Your task to perform on an android device: Show me popular games on the Play Store Image 0: 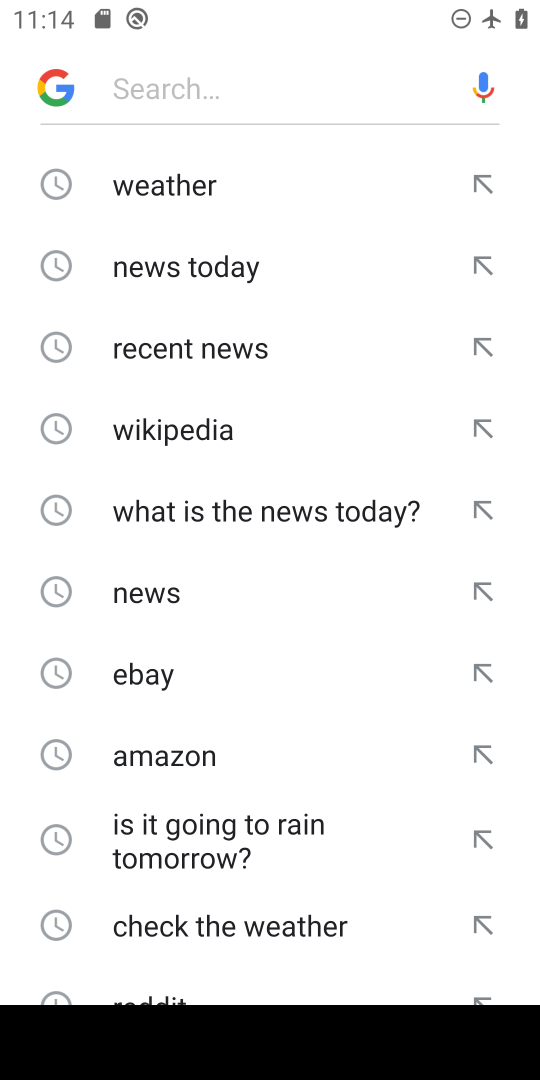
Step 0: press home button
Your task to perform on an android device: Show me popular games on the Play Store Image 1: 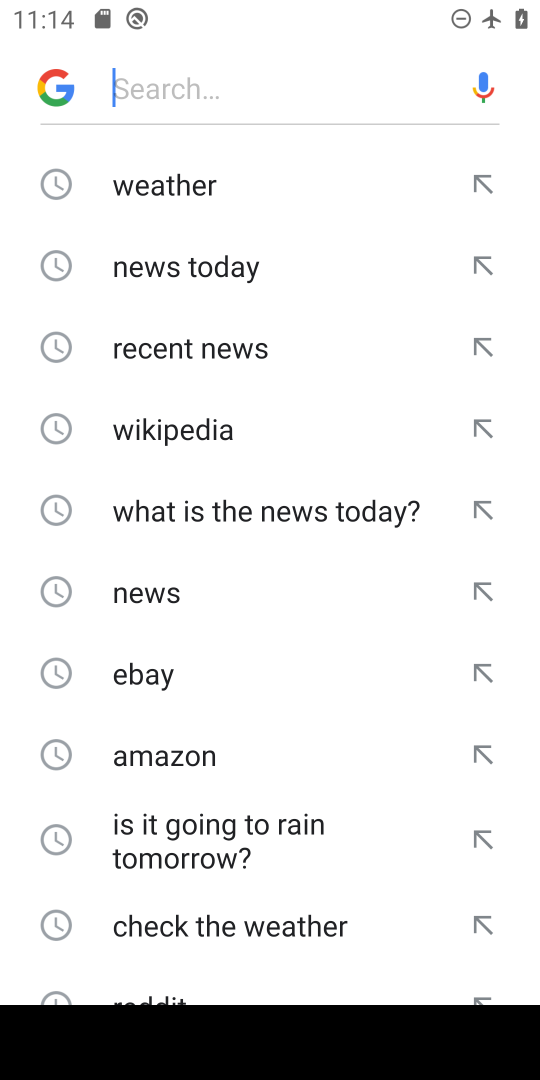
Step 1: press home button
Your task to perform on an android device: Show me popular games on the Play Store Image 2: 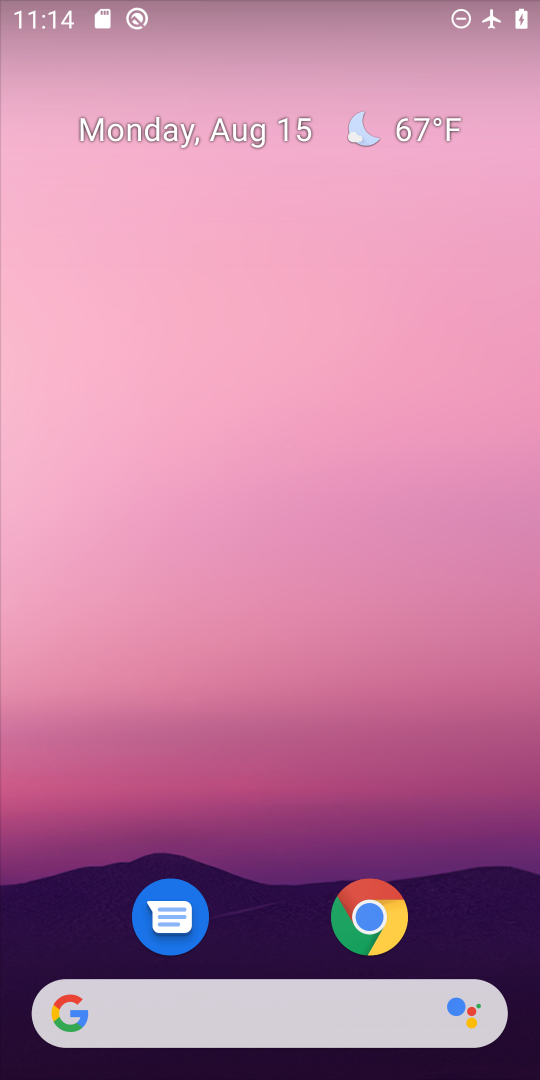
Step 2: drag from (265, 835) to (253, 0)
Your task to perform on an android device: Show me popular games on the Play Store Image 3: 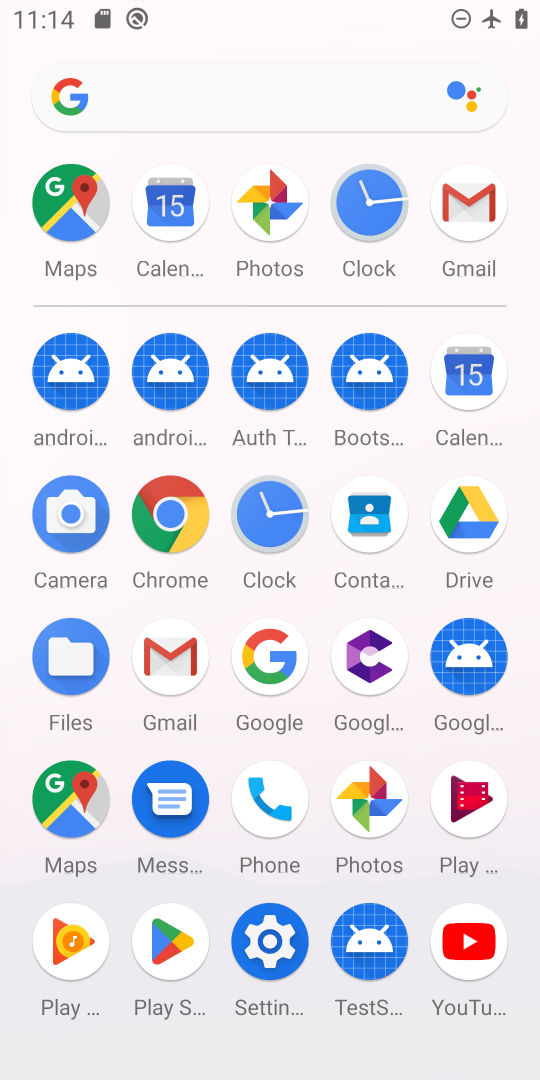
Step 3: click (173, 932)
Your task to perform on an android device: Show me popular games on the Play Store Image 4: 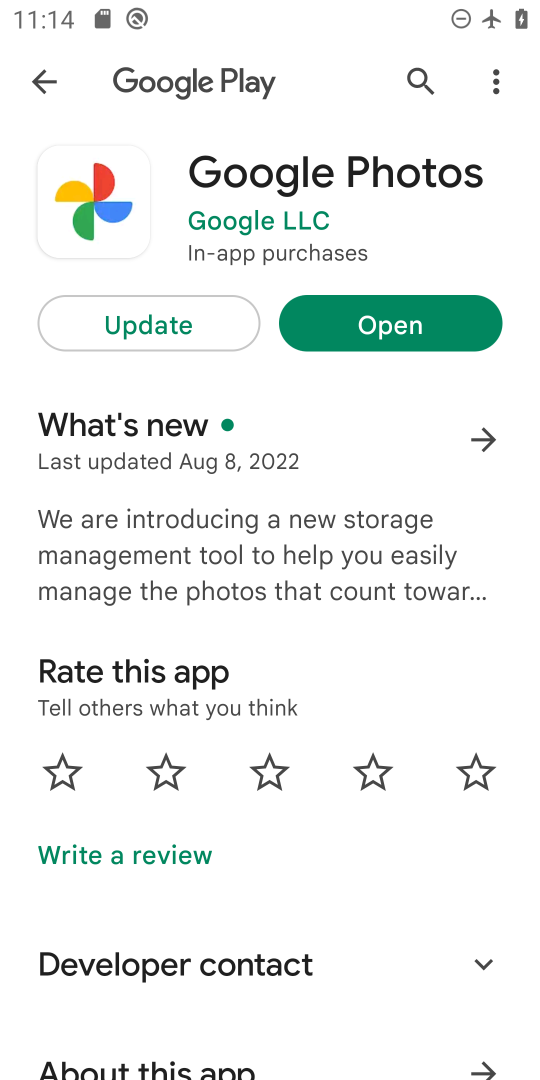
Step 4: click (50, 68)
Your task to perform on an android device: Show me popular games on the Play Store Image 5: 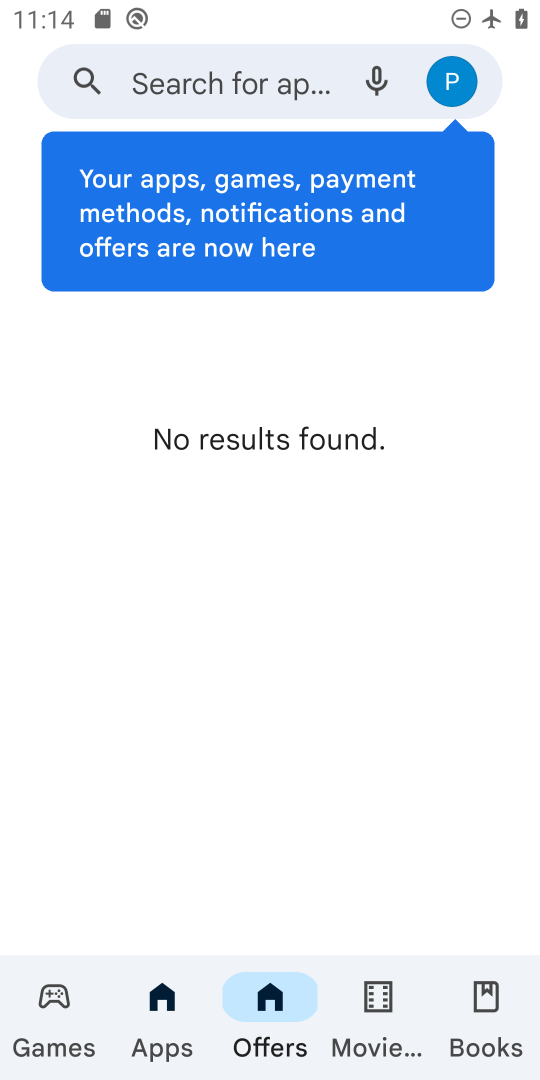
Step 5: click (67, 1022)
Your task to perform on an android device: Show me popular games on the Play Store Image 6: 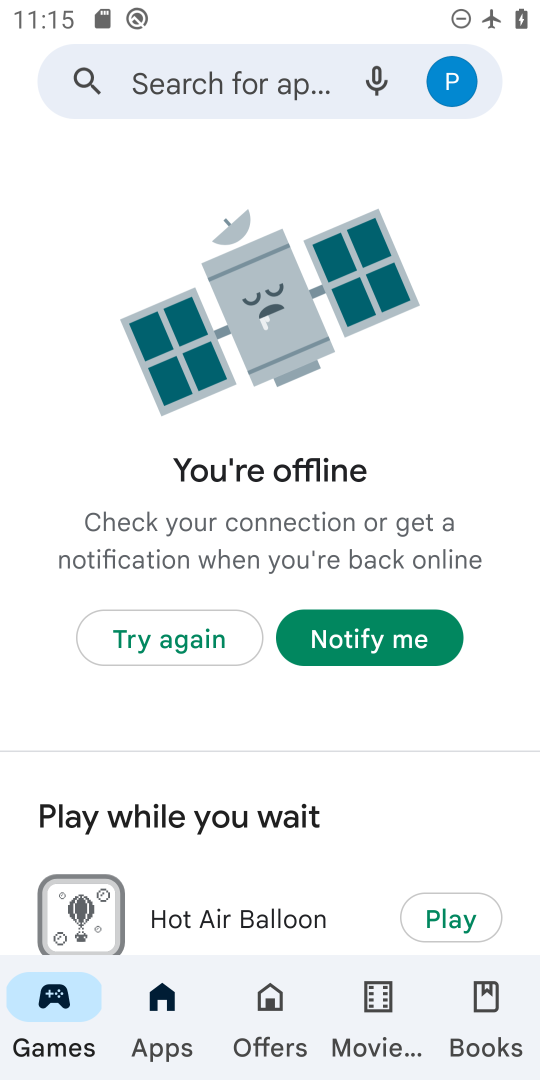
Step 6: task complete